Your task to perform on an android device: Open the Play Movies app and select the watchlist tab. Image 0: 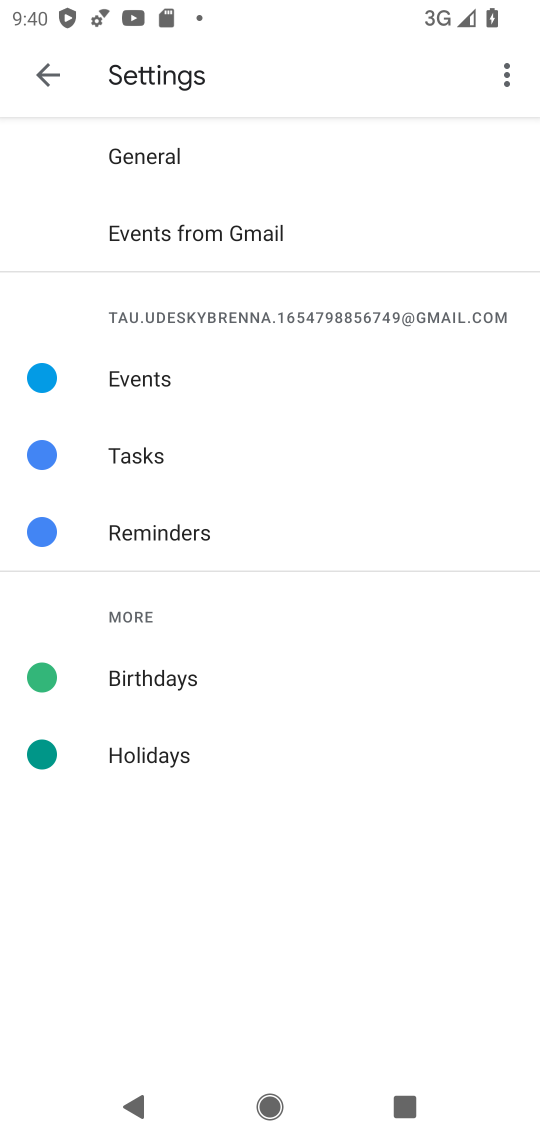
Step 0: press home button
Your task to perform on an android device: Open the Play Movies app and select the watchlist tab. Image 1: 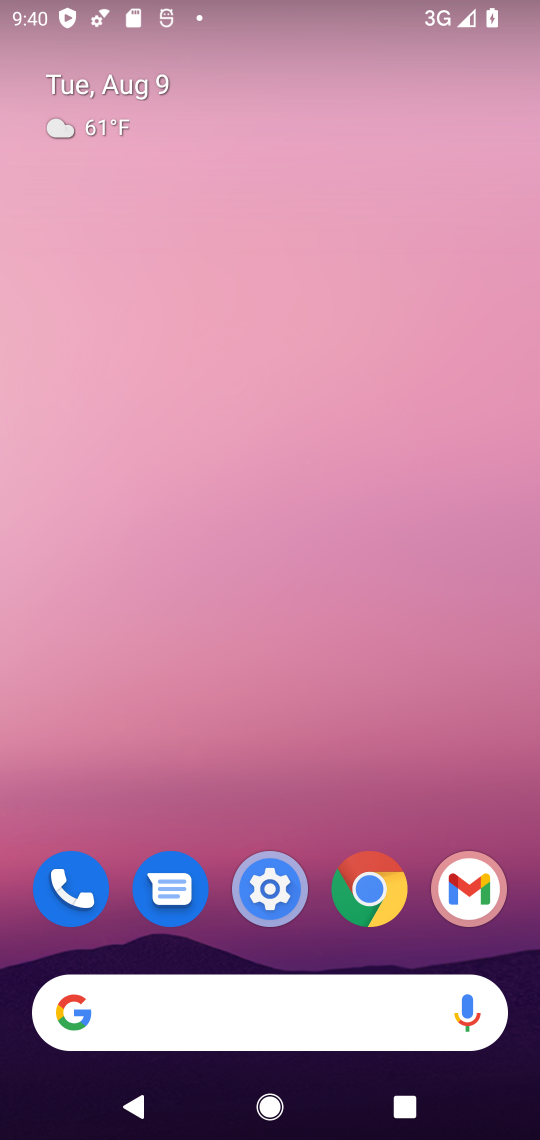
Step 1: task complete